Your task to perform on an android device: change the clock display to show seconds Image 0: 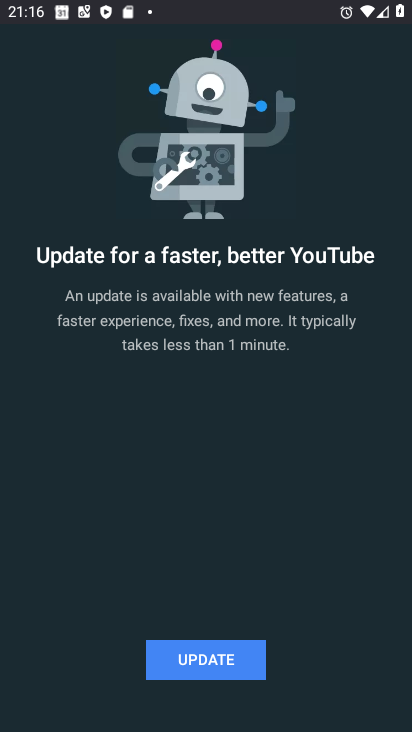
Step 0: press home button
Your task to perform on an android device: change the clock display to show seconds Image 1: 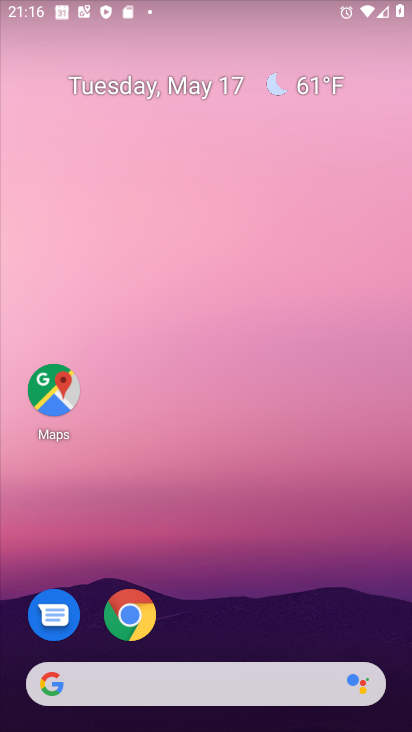
Step 1: drag from (283, 603) to (246, 72)
Your task to perform on an android device: change the clock display to show seconds Image 2: 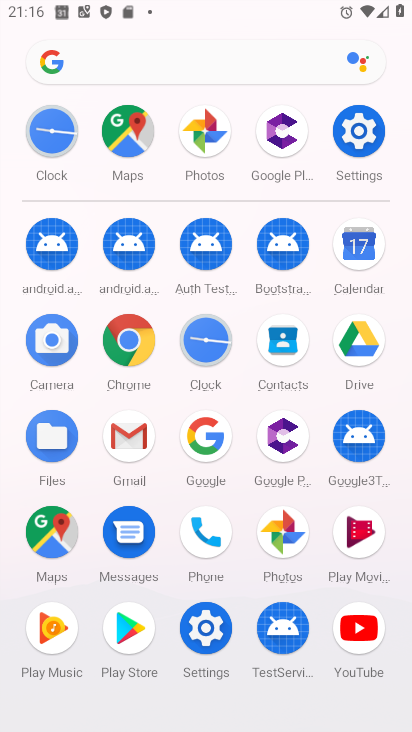
Step 2: click (214, 360)
Your task to perform on an android device: change the clock display to show seconds Image 3: 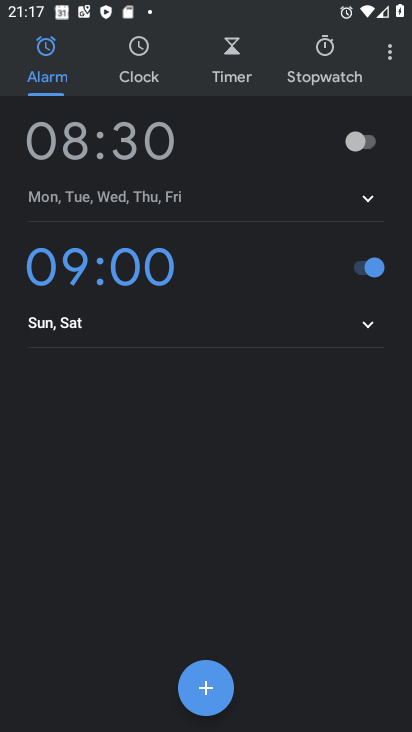
Step 3: click (384, 54)
Your task to perform on an android device: change the clock display to show seconds Image 4: 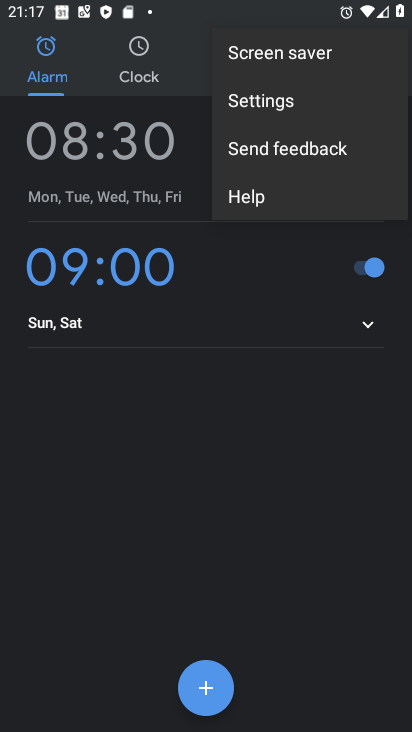
Step 4: click (265, 104)
Your task to perform on an android device: change the clock display to show seconds Image 5: 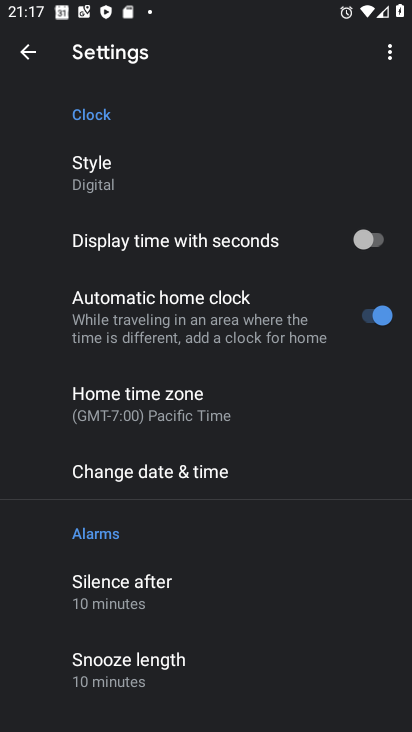
Step 5: click (365, 242)
Your task to perform on an android device: change the clock display to show seconds Image 6: 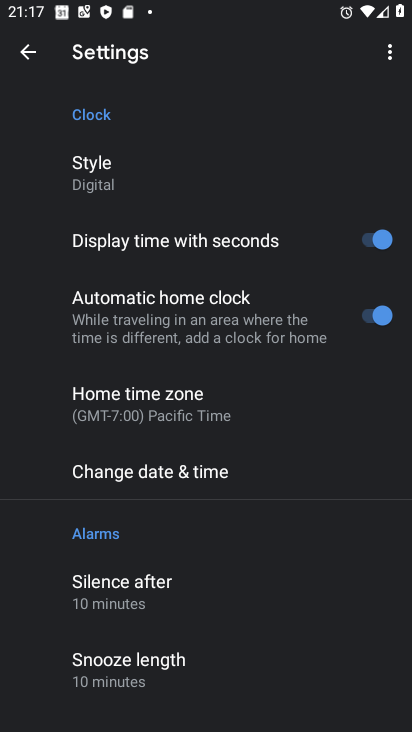
Step 6: task complete